Your task to perform on an android device: Show me the alarms in the clock app Image 0: 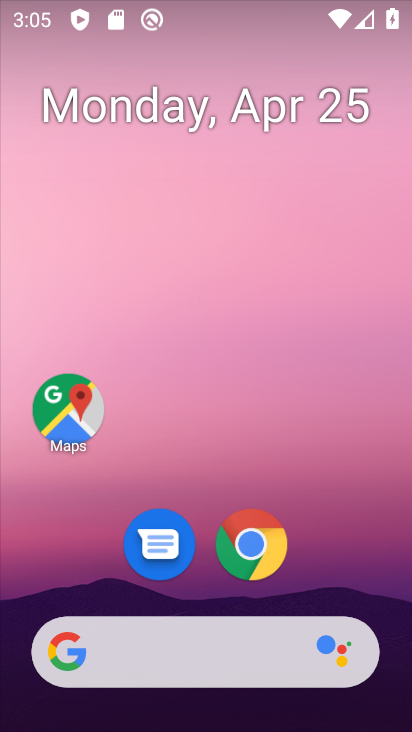
Step 0: drag from (200, 474) to (304, 21)
Your task to perform on an android device: Show me the alarms in the clock app Image 1: 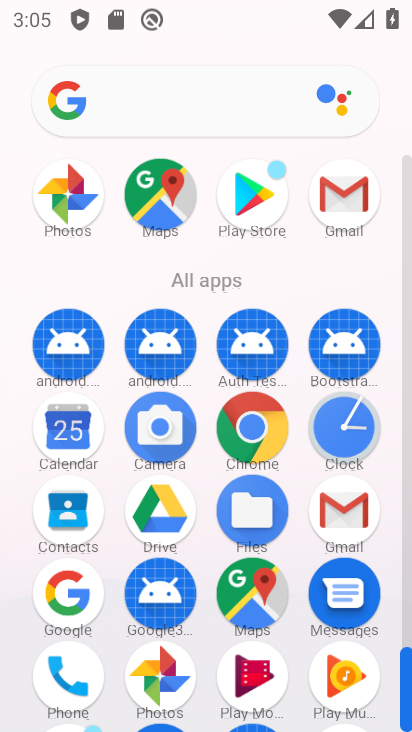
Step 1: click (343, 428)
Your task to perform on an android device: Show me the alarms in the clock app Image 2: 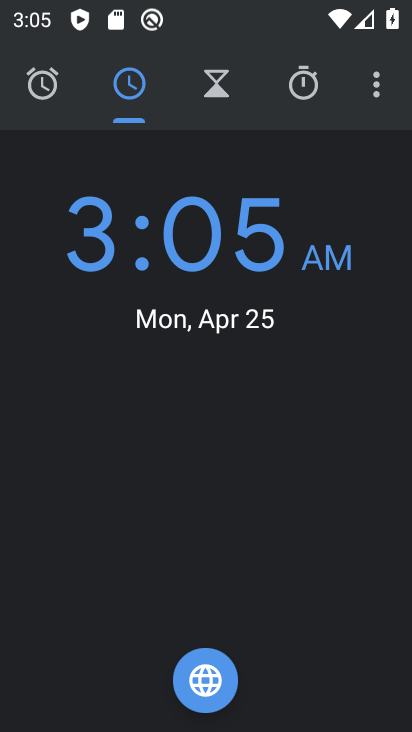
Step 2: click (45, 96)
Your task to perform on an android device: Show me the alarms in the clock app Image 3: 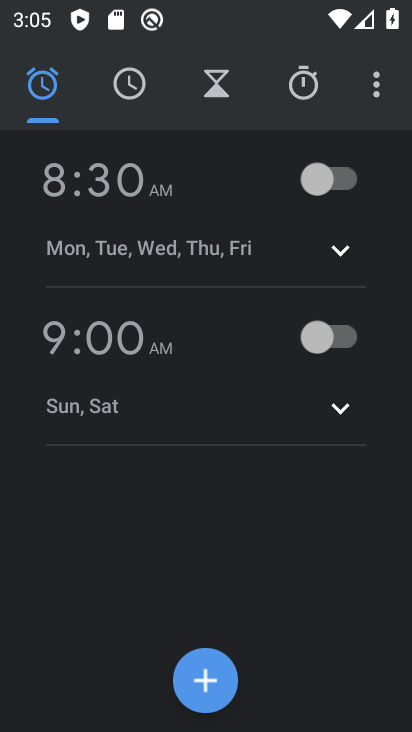
Step 3: task complete